Your task to perform on an android device: Search for sushi restaurants on Maps Image 0: 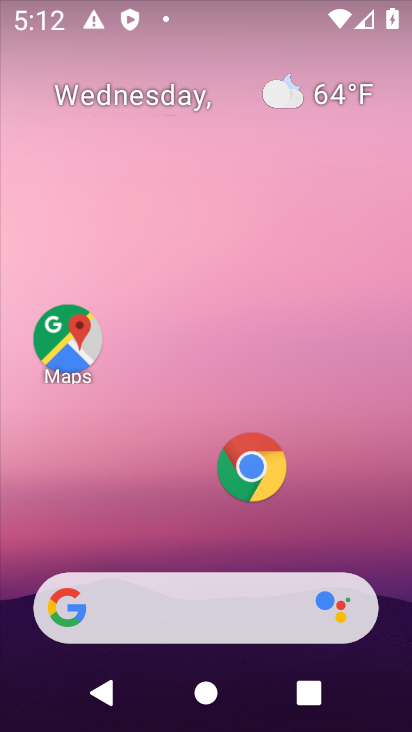
Step 0: drag from (151, 455) to (193, 175)
Your task to perform on an android device: Search for sushi restaurants on Maps Image 1: 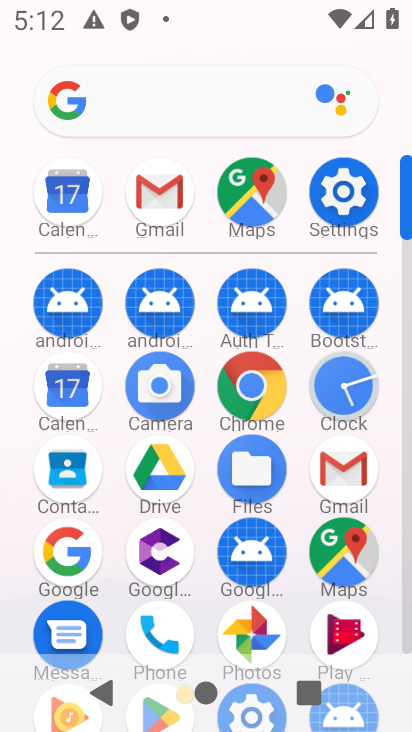
Step 1: task complete